Your task to perform on an android device: Find coffee shops on Maps Image 0: 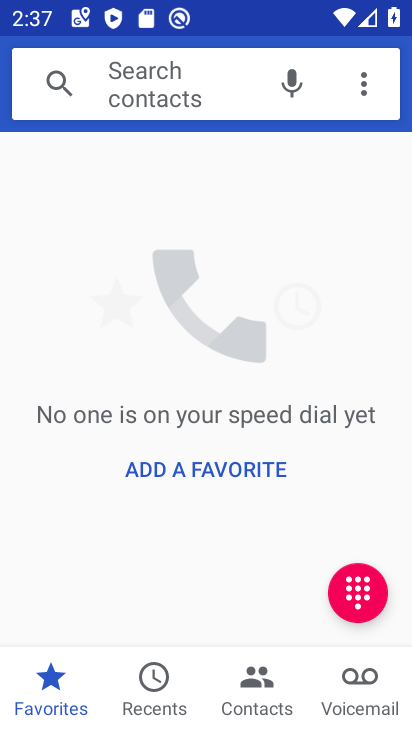
Step 0: press home button
Your task to perform on an android device: Find coffee shops on Maps Image 1: 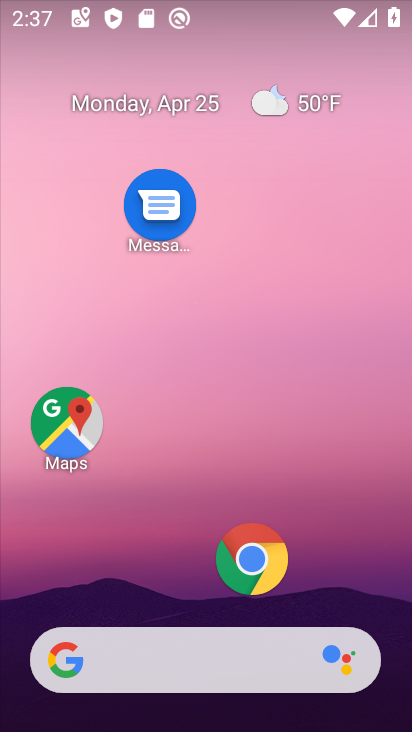
Step 1: drag from (142, 561) to (254, 2)
Your task to perform on an android device: Find coffee shops on Maps Image 2: 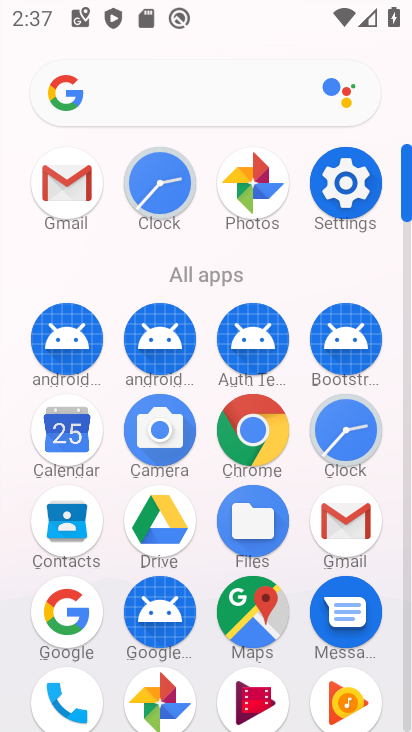
Step 2: click (259, 603)
Your task to perform on an android device: Find coffee shops on Maps Image 3: 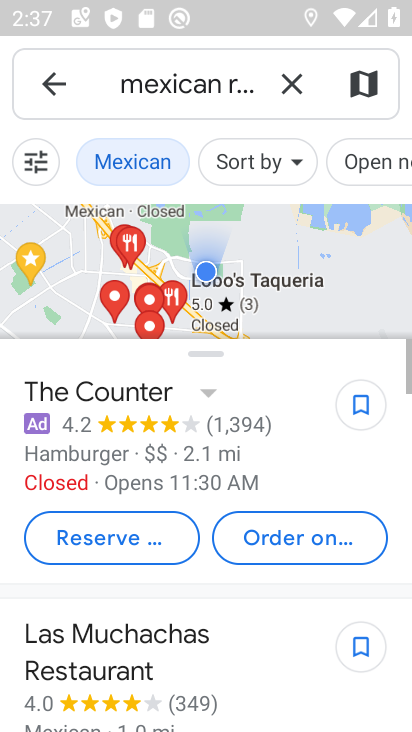
Step 3: click (210, 115)
Your task to perform on an android device: Find coffee shops on Maps Image 4: 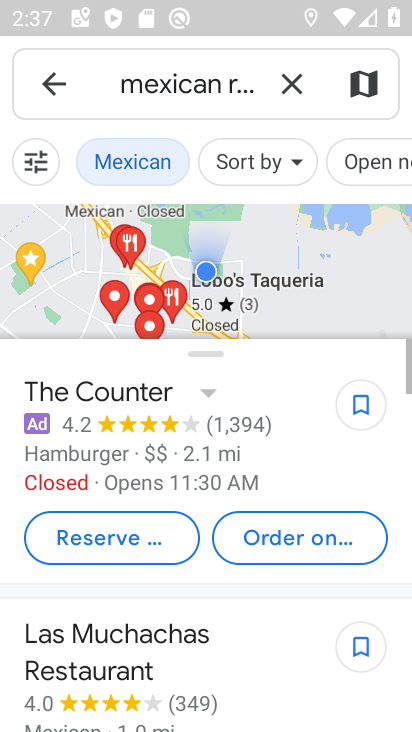
Step 4: click (210, 115)
Your task to perform on an android device: Find coffee shops on Maps Image 5: 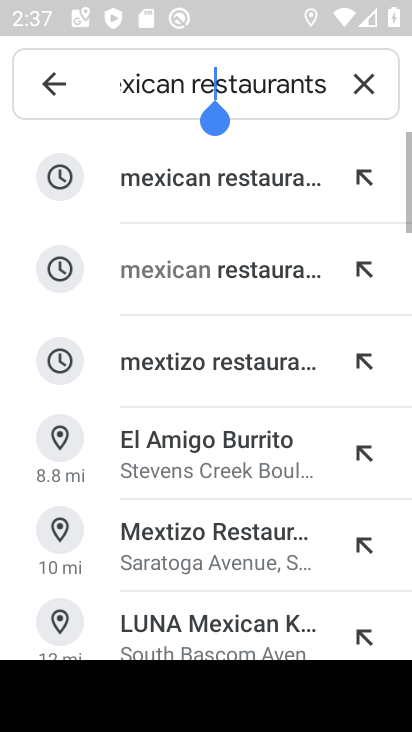
Step 5: click (365, 82)
Your task to perform on an android device: Find coffee shops on Maps Image 6: 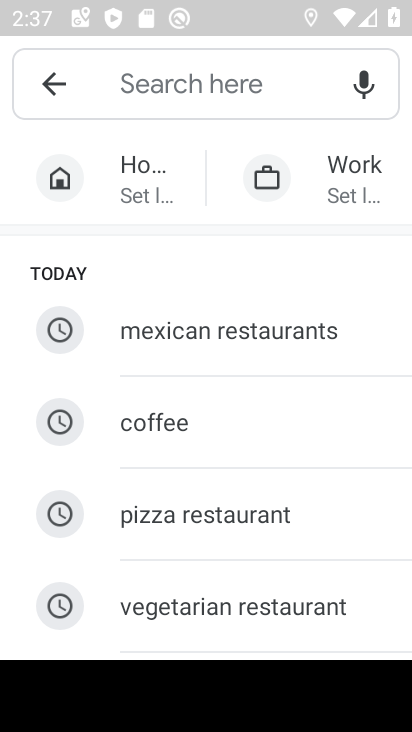
Step 6: click (186, 74)
Your task to perform on an android device: Find coffee shops on Maps Image 7: 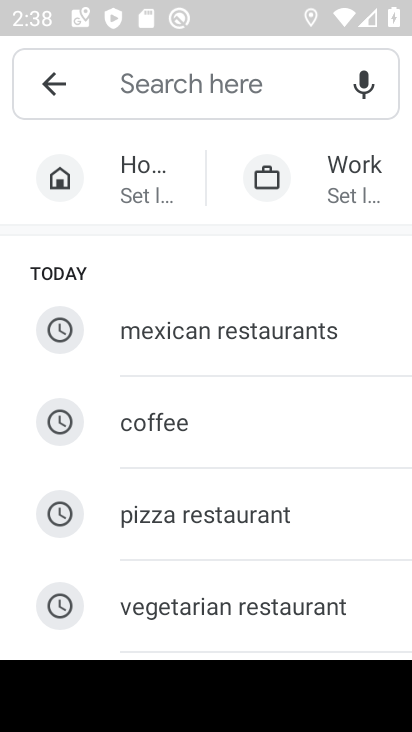
Step 7: type "coffee shops"
Your task to perform on an android device: Find coffee shops on Maps Image 8: 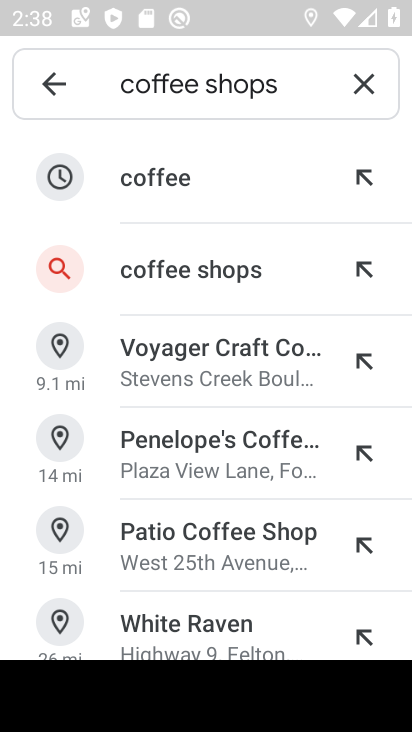
Step 8: click (180, 274)
Your task to perform on an android device: Find coffee shops on Maps Image 9: 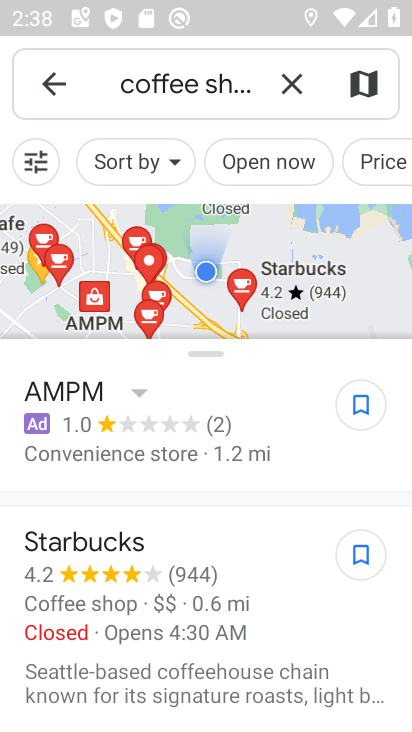
Step 9: task complete